Your task to perform on an android device: check battery use Image 0: 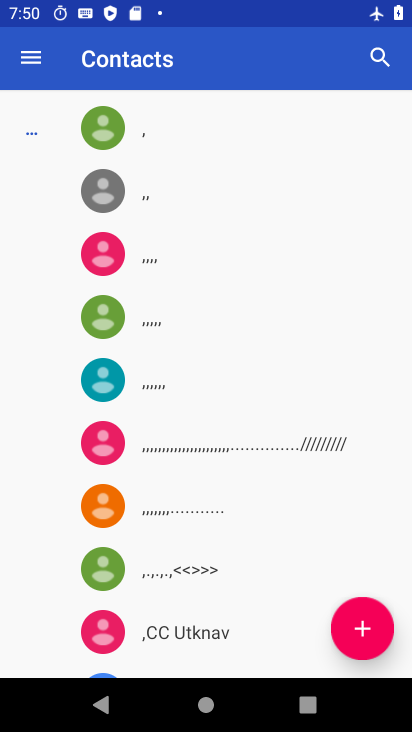
Step 0: press home button
Your task to perform on an android device: check battery use Image 1: 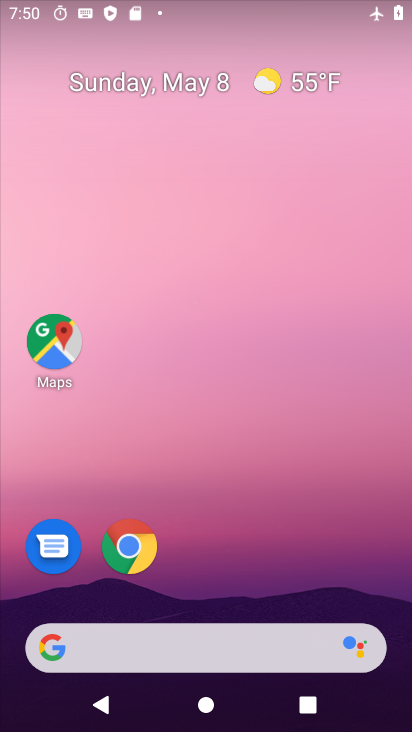
Step 1: click (202, 47)
Your task to perform on an android device: check battery use Image 2: 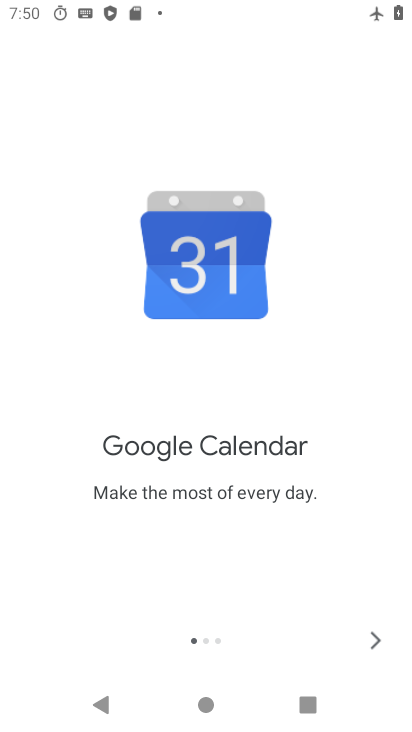
Step 2: press home button
Your task to perform on an android device: check battery use Image 3: 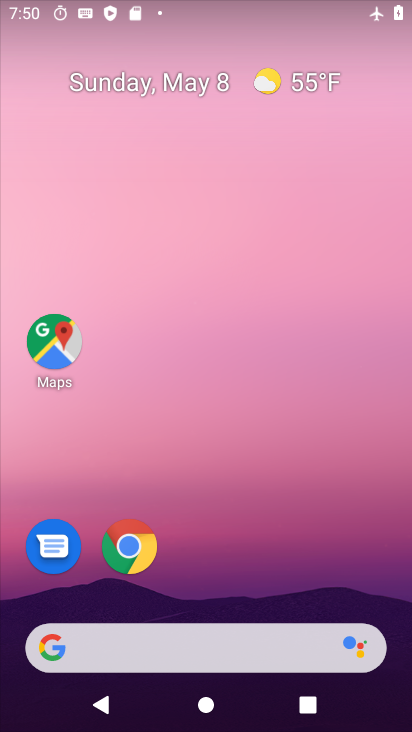
Step 3: drag from (127, 424) to (147, 51)
Your task to perform on an android device: check battery use Image 4: 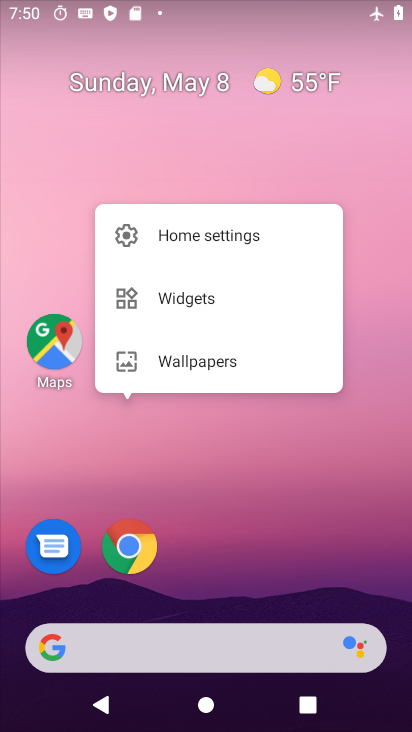
Step 4: click (243, 500)
Your task to perform on an android device: check battery use Image 5: 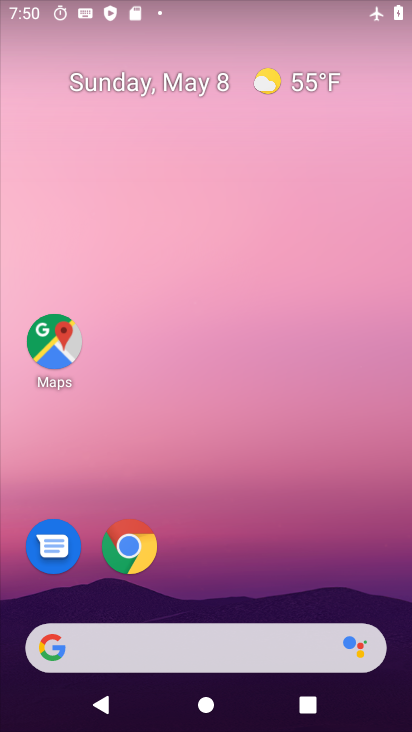
Step 5: drag from (243, 500) to (302, 0)
Your task to perform on an android device: check battery use Image 6: 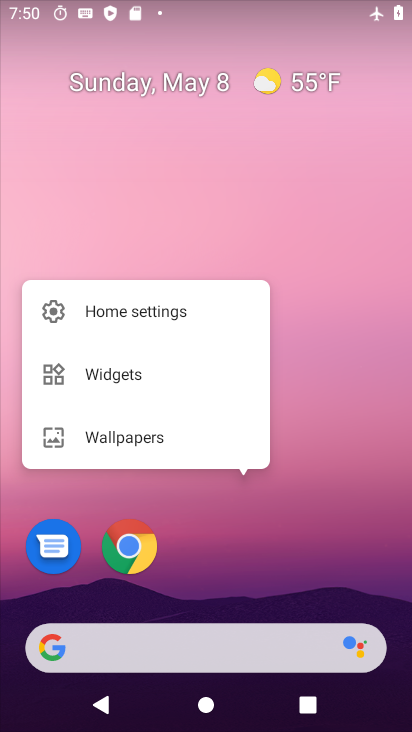
Step 6: click (317, 261)
Your task to perform on an android device: check battery use Image 7: 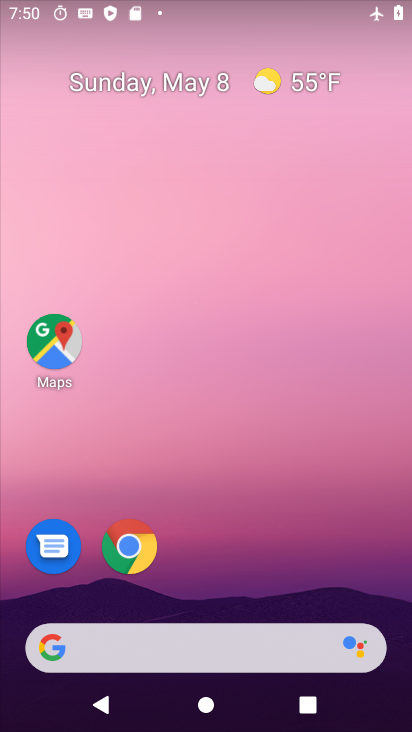
Step 7: drag from (257, 558) to (303, 26)
Your task to perform on an android device: check battery use Image 8: 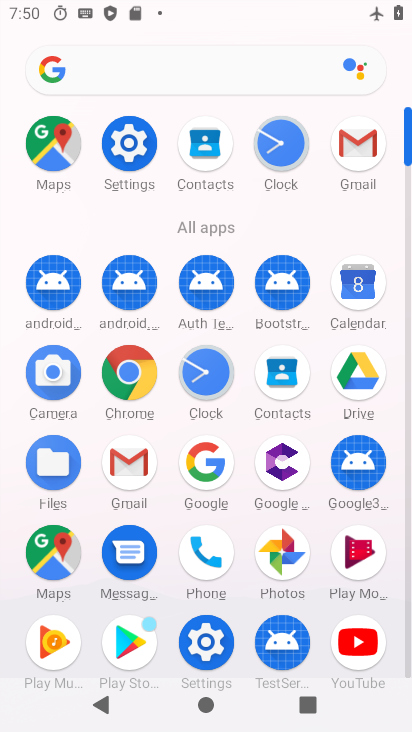
Step 8: click (133, 141)
Your task to perform on an android device: check battery use Image 9: 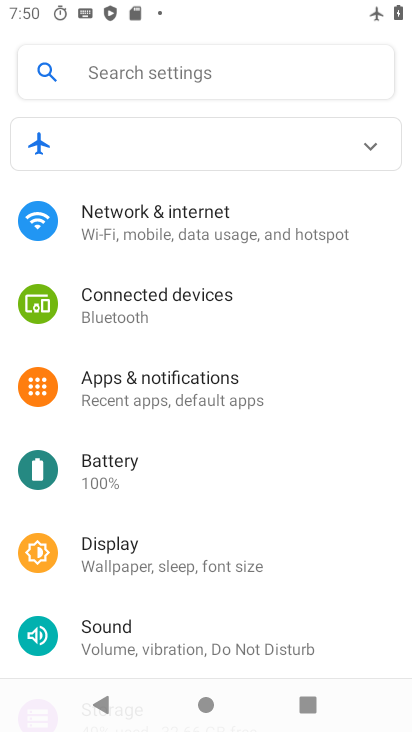
Step 9: click (151, 466)
Your task to perform on an android device: check battery use Image 10: 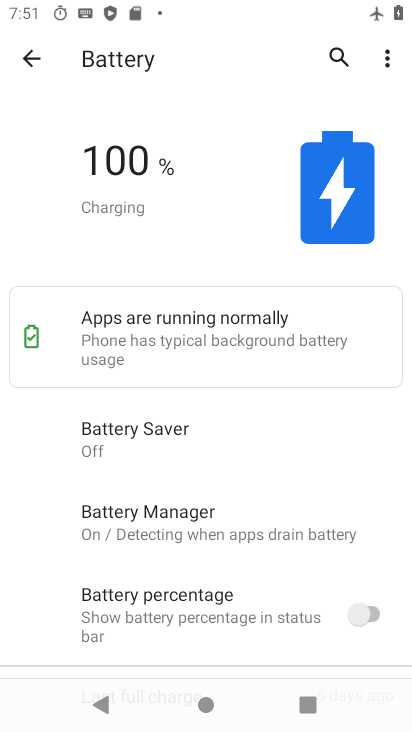
Step 10: click (389, 58)
Your task to perform on an android device: check battery use Image 11: 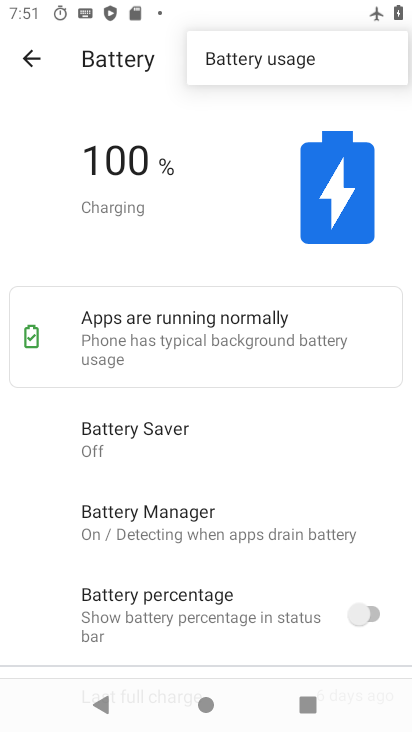
Step 11: click (321, 57)
Your task to perform on an android device: check battery use Image 12: 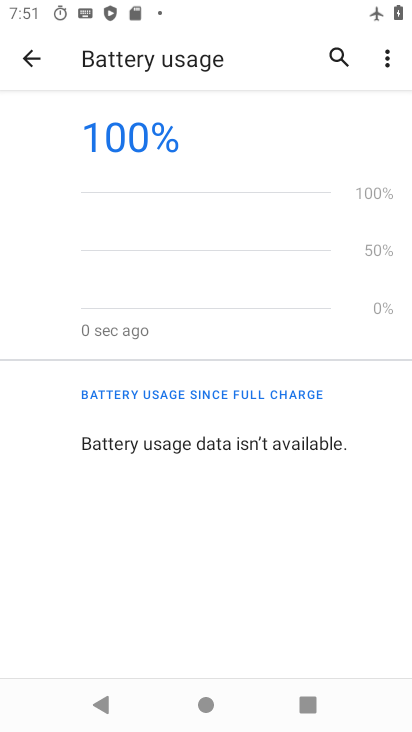
Step 12: task complete